Your task to perform on an android device: Go to battery settings Image 0: 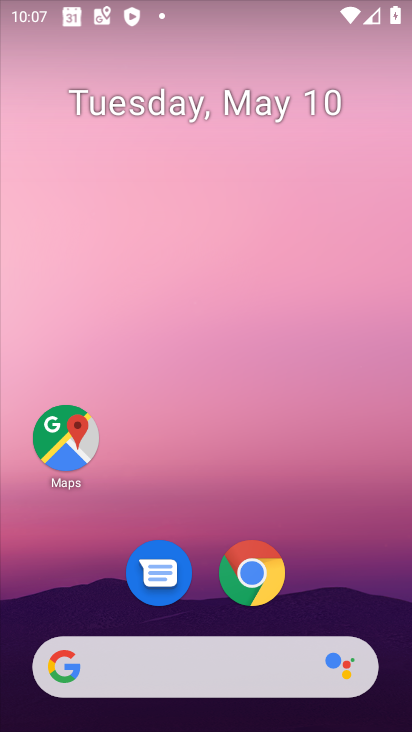
Step 0: drag from (325, 567) to (134, 89)
Your task to perform on an android device: Go to battery settings Image 1: 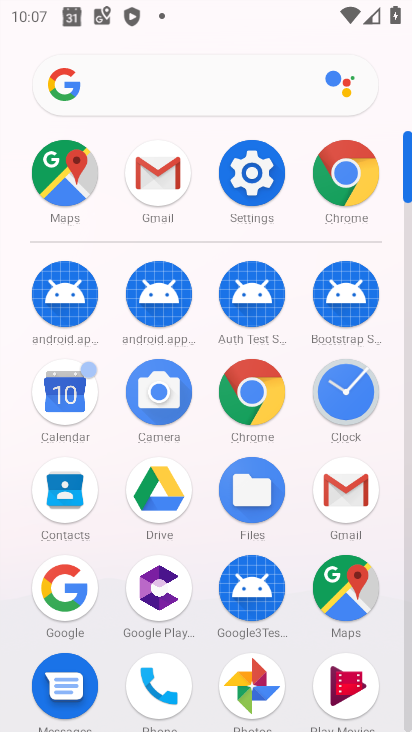
Step 1: click (255, 170)
Your task to perform on an android device: Go to battery settings Image 2: 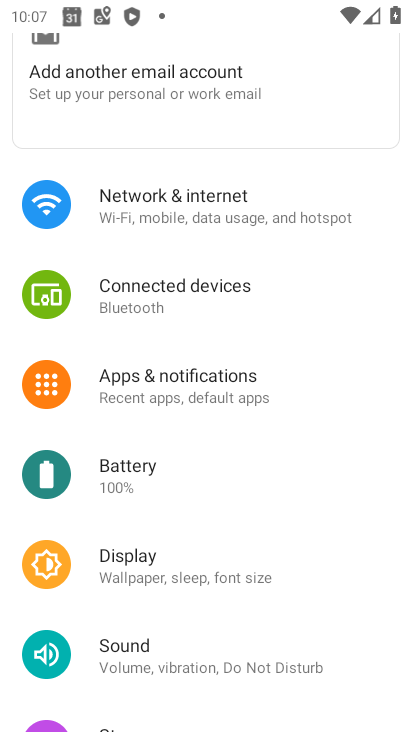
Step 2: click (127, 469)
Your task to perform on an android device: Go to battery settings Image 3: 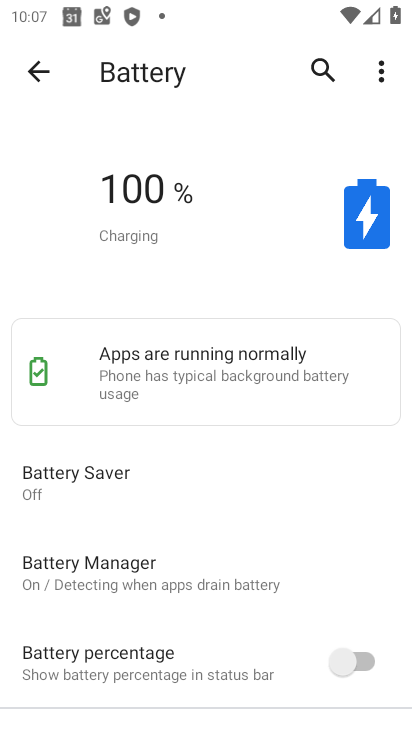
Step 3: task complete